Your task to perform on an android device: Go to notification settings Image 0: 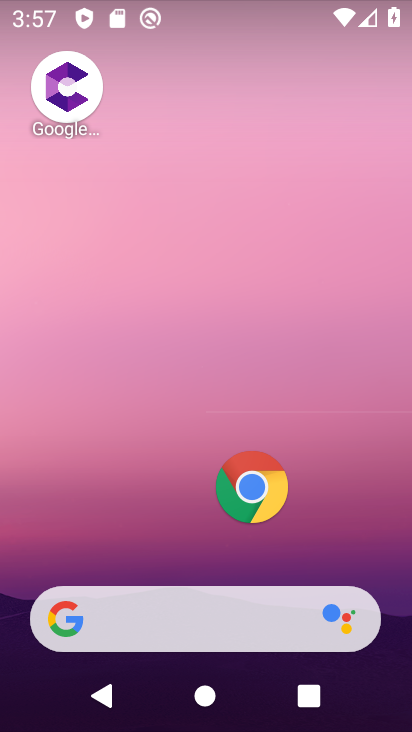
Step 0: drag from (132, 546) to (120, 29)
Your task to perform on an android device: Go to notification settings Image 1: 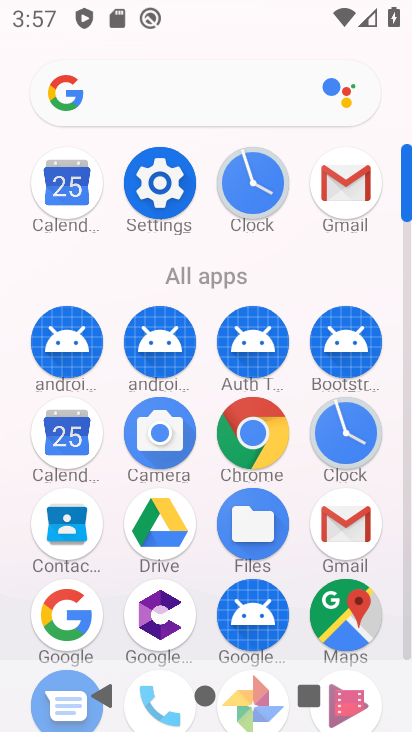
Step 1: click (151, 175)
Your task to perform on an android device: Go to notification settings Image 2: 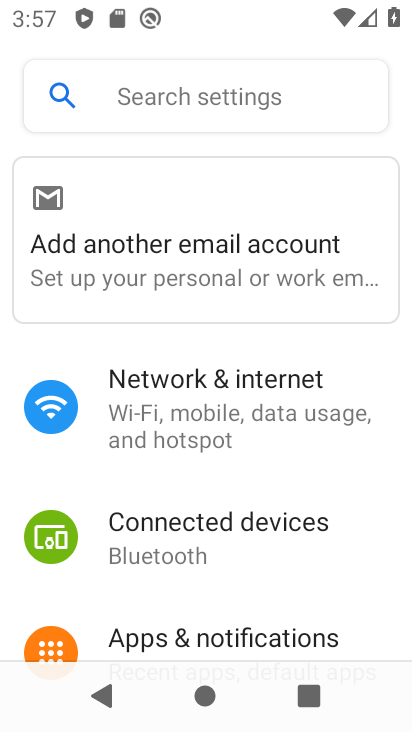
Step 2: click (297, 626)
Your task to perform on an android device: Go to notification settings Image 3: 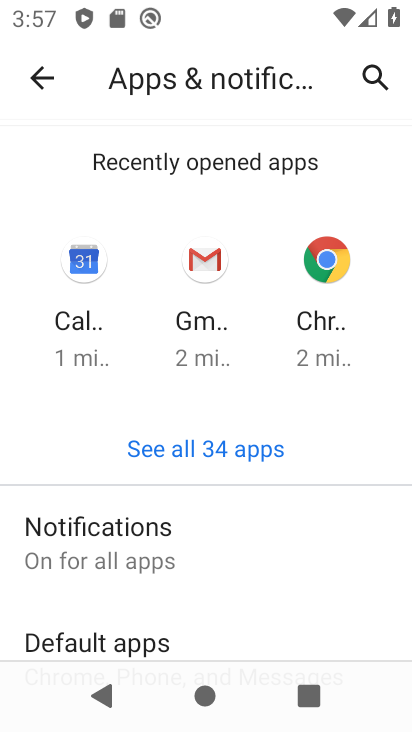
Step 3: click (125, 542)
Your task to perform on an android device: Go to notification settings Image 4: 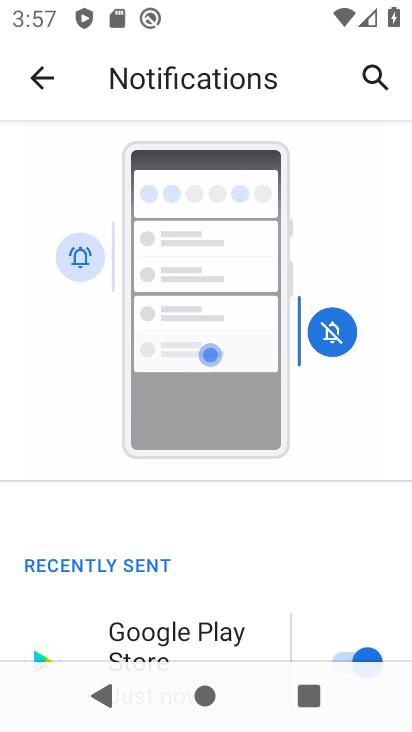
Step 4: task complete